Your task to perform on an android device: manage bookmarks in the chrome app Image 0: 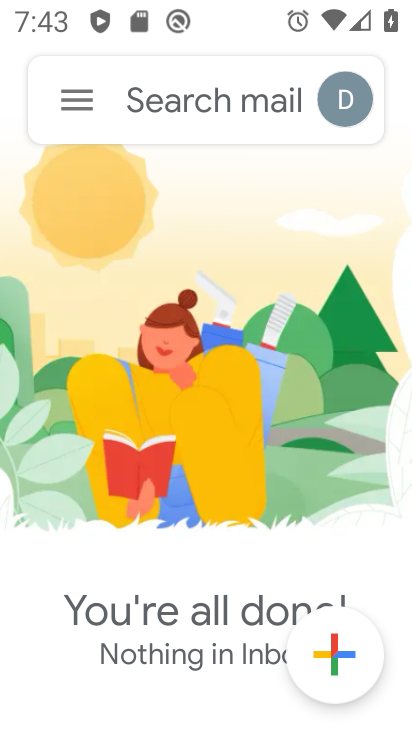
Step 0: press home button
Your task to perform on an android device: manage bookmarks in the chrome app Image 1: 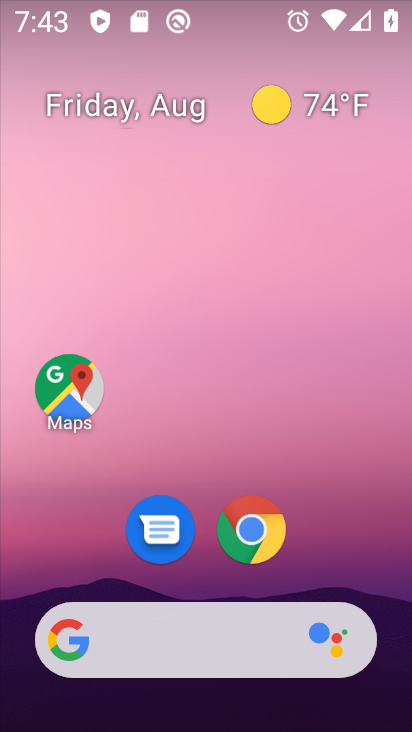
Step 1: click (254, 530)
Your task to perform on an android device: manage bookmarks in the chrome app Image 2: 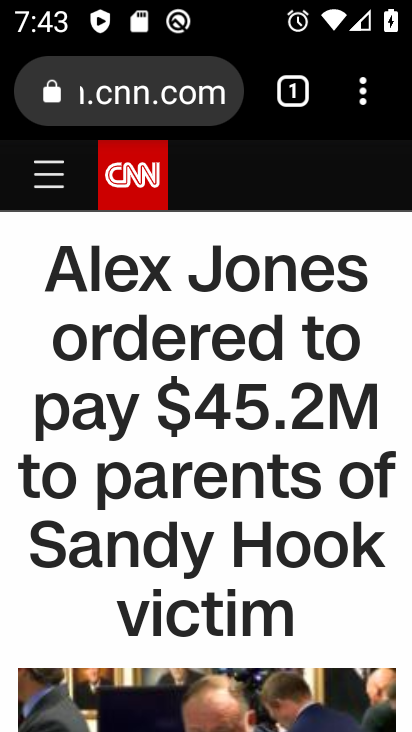
Step 2: click (365, 95)
Your task to perform on an android device: manage bookmarks in the chrome app Image 3: 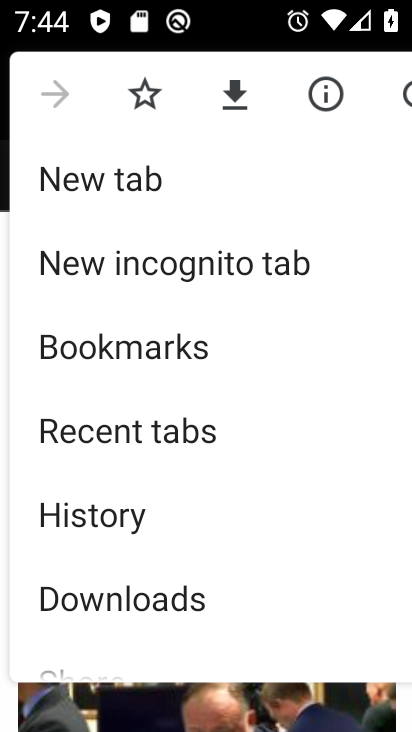
Step 3: click (165, 356)
Your task to perform on an android device: manage bookmarks in the chrome app Image 4: 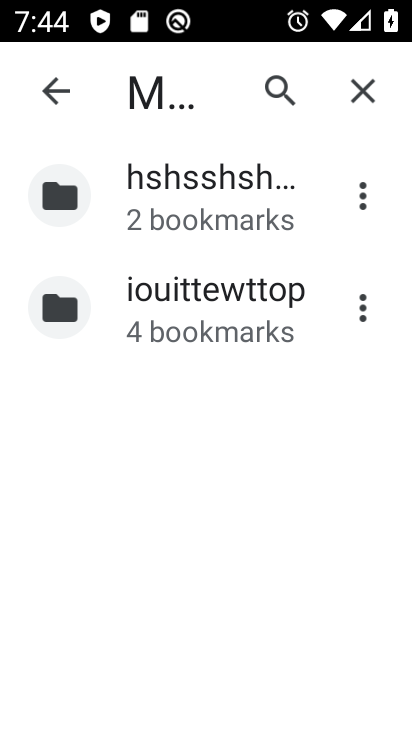
Step 4: click (351, 198)
Your task to perform on an android device: manage bookmarks in the chrome app Image 5: 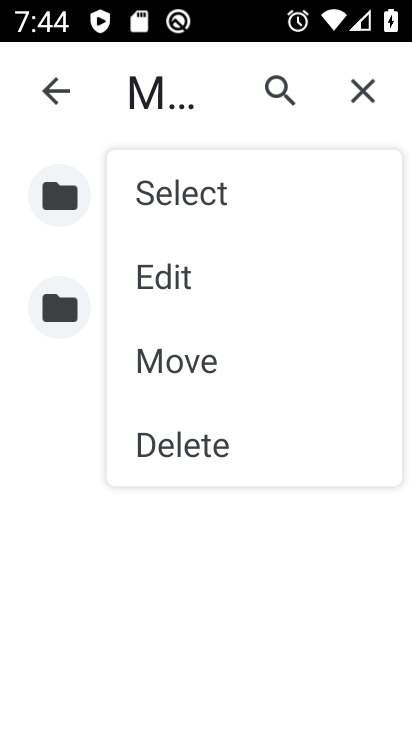
Step 5: click (200, 273)
Your task to perform on an android device: manage bookmarks in the chrome app Image 6: 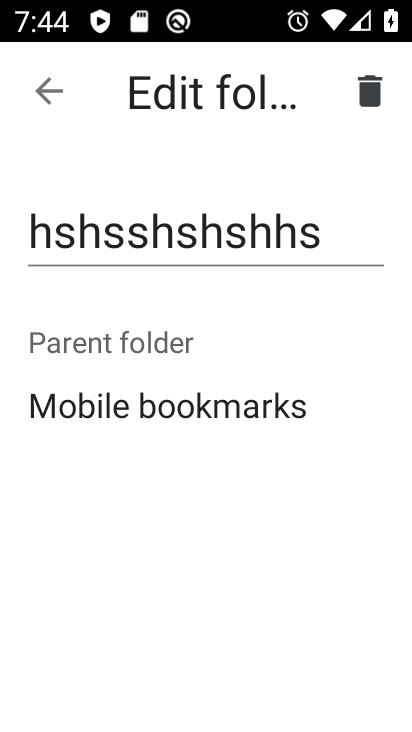
Step 6: click (360, 106)
Your task to perform on an android device: manage bookmarks in the chrome app Image 7: 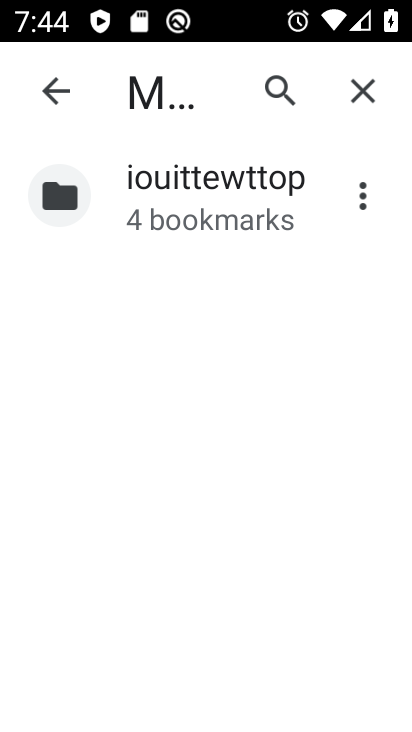
Step 7: task complete